Your task to perform on an android device: Open the map Image 0: 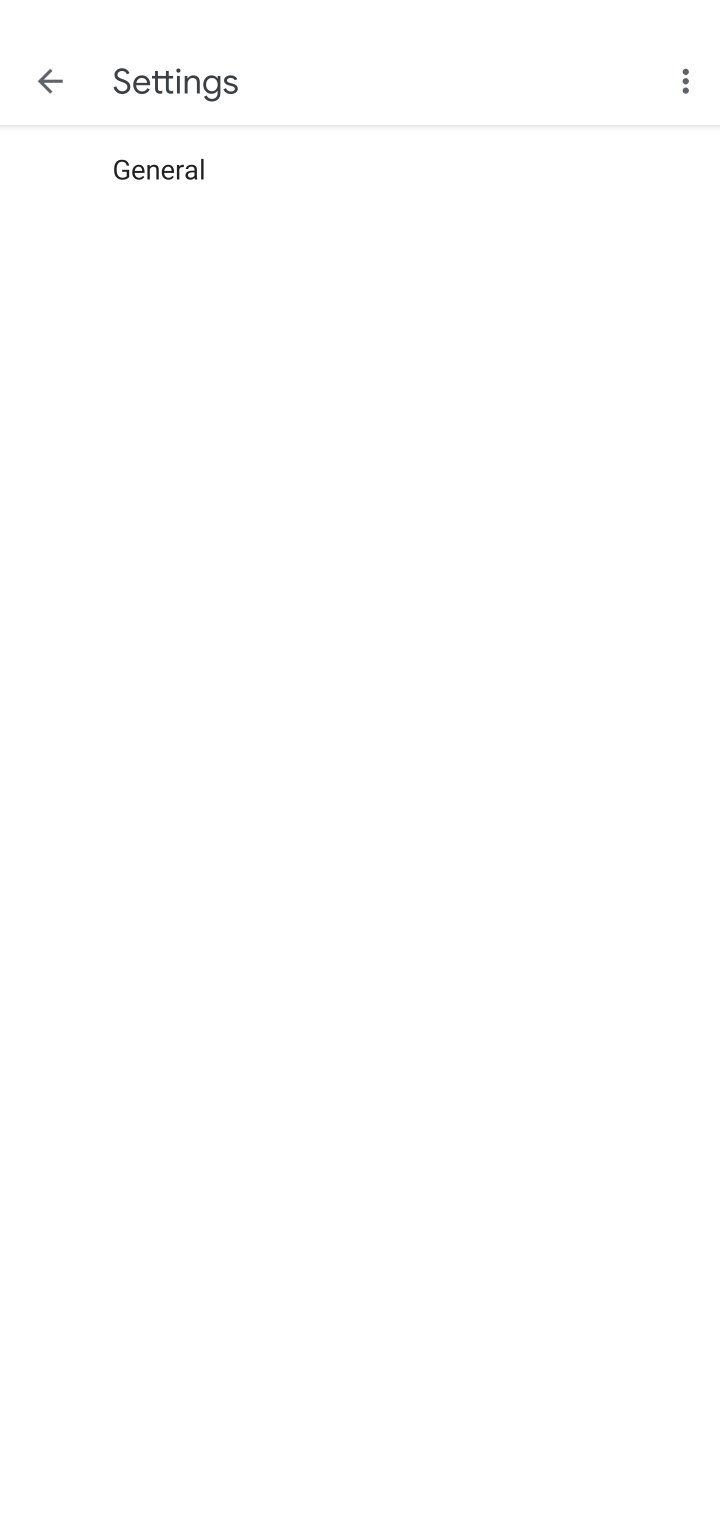
Step 0: press home button
Your task to perform on an android device: Open the map Image 1: 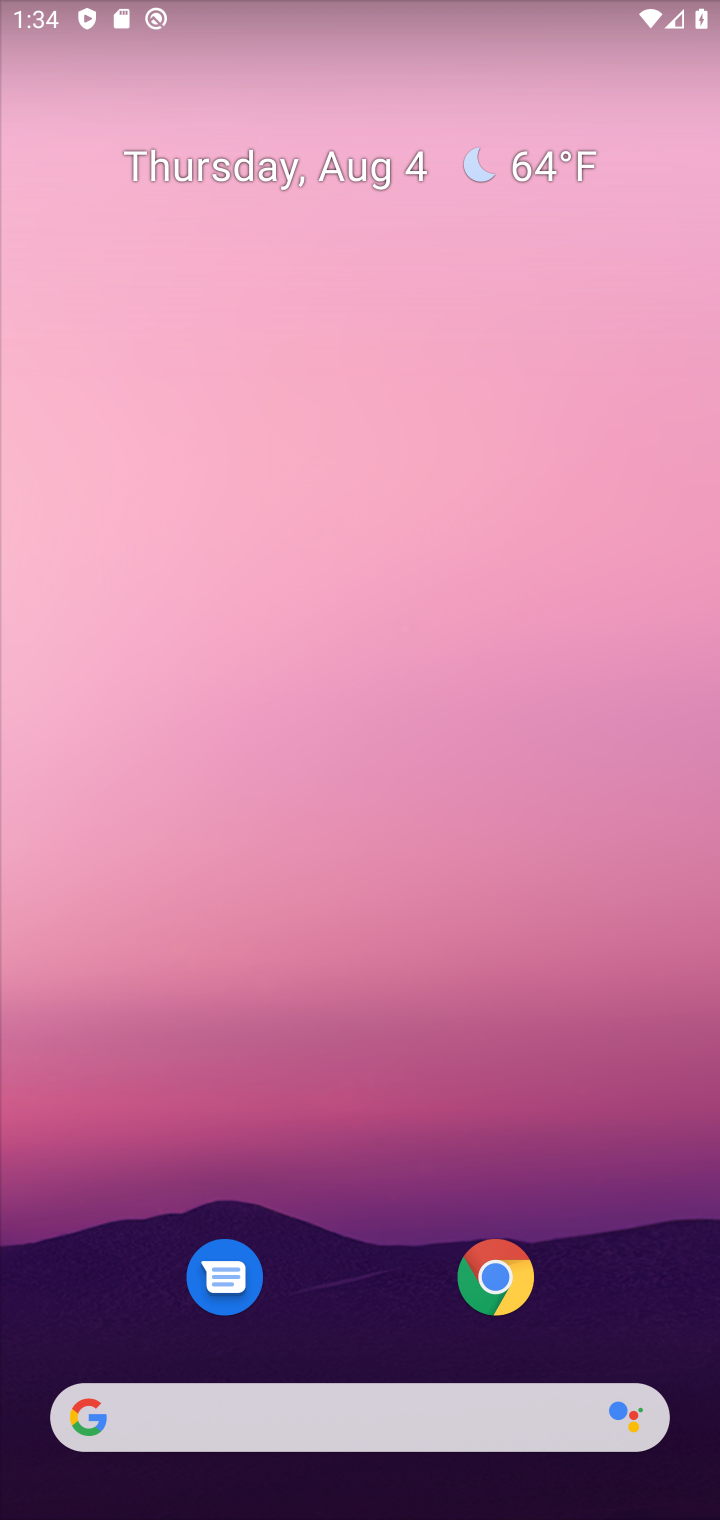
Step 1: press home button
Your task to perform on an android device: Open the map Image 2: 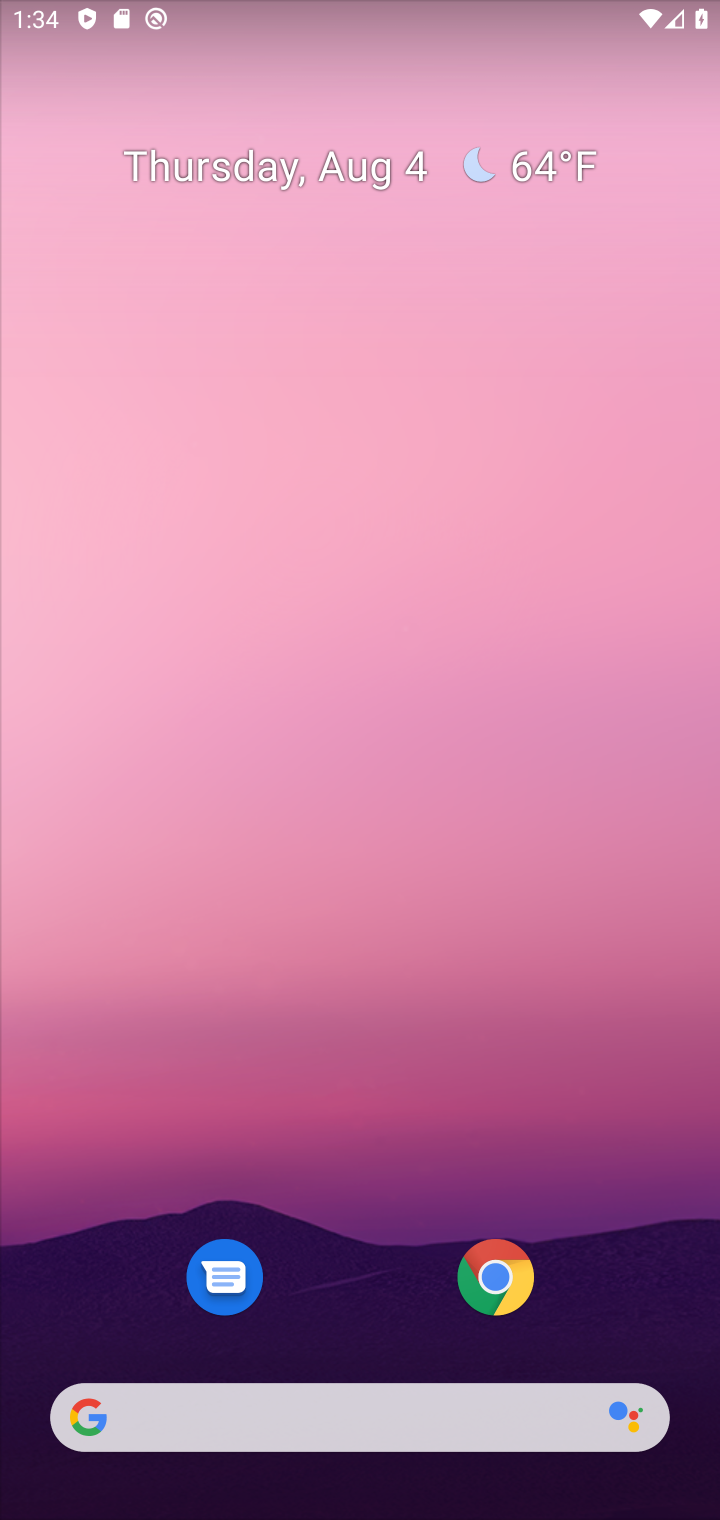
Step 2: drag from (356, 1304) to (532, 618)
Your task to perform on an android device: Open the map Image 3: 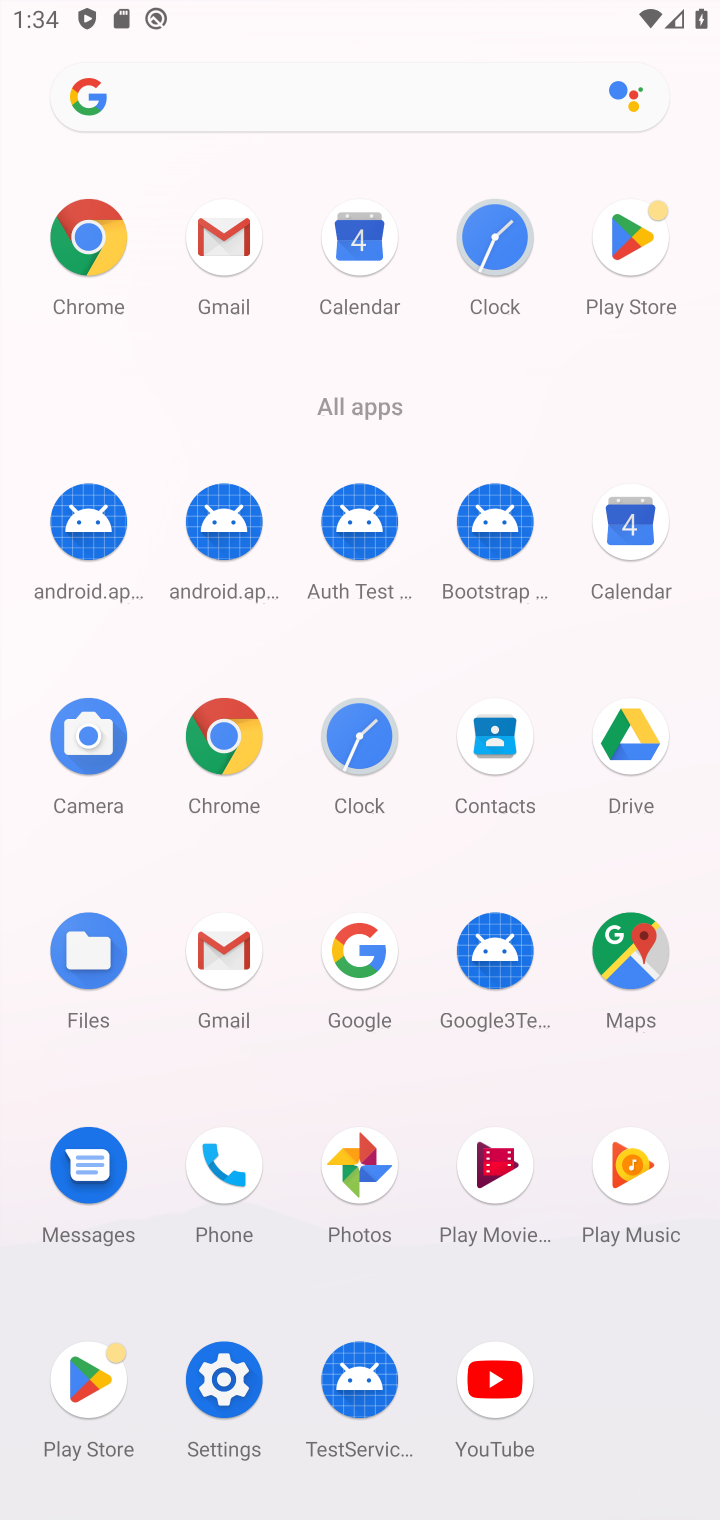
Step 3: click (633, 974)
Your task to perform on an android device: Open the map Image 4: 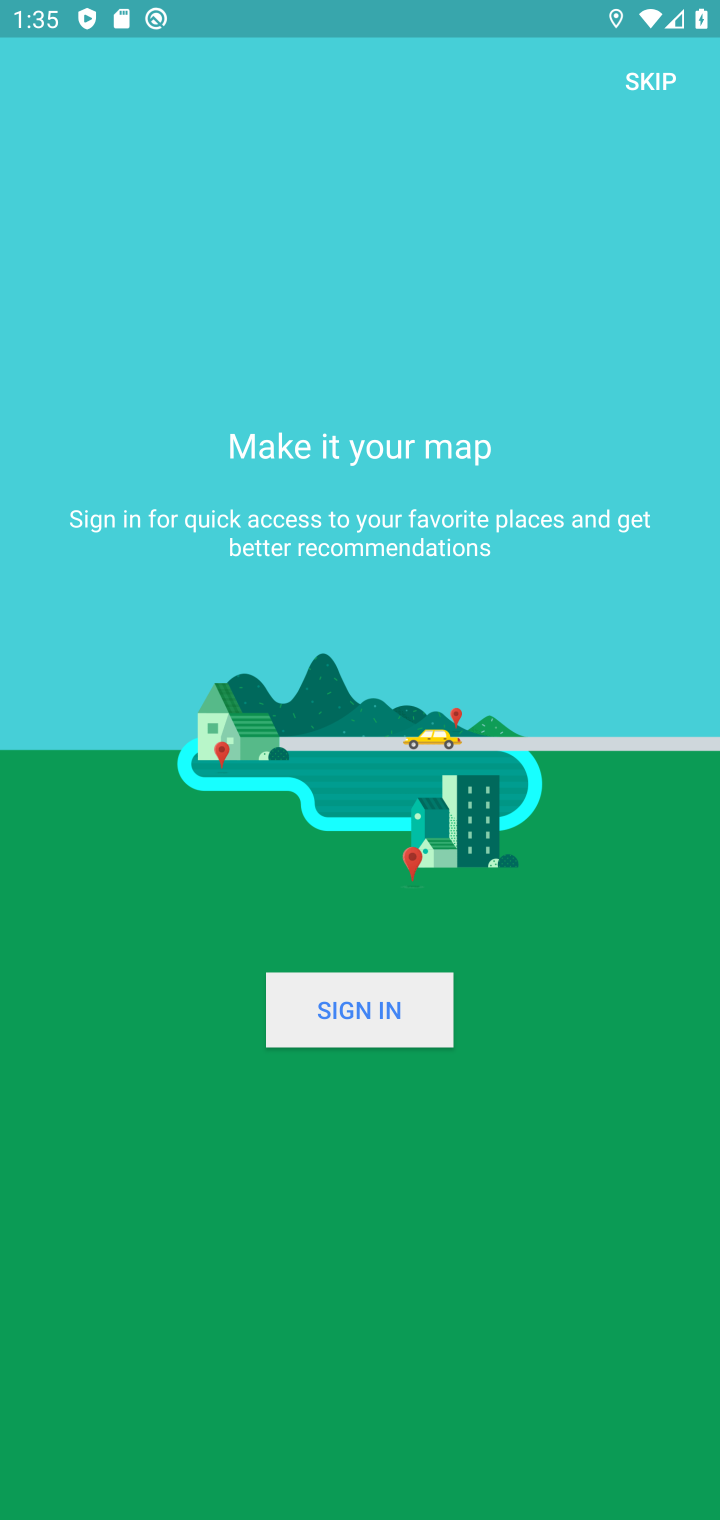
Step 4: task complete